Your task to perform on an android device: Go to Google maps Image 0: 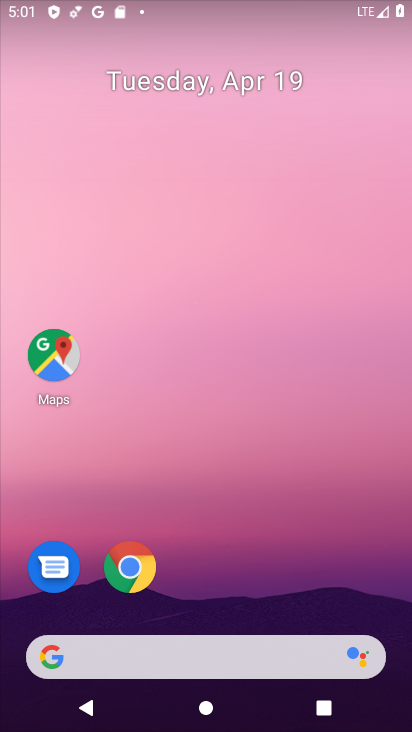
Step 0: drag from (218, 534) to (230, 63)
Your task to perform on an android device: Go to Google maps Image 1: 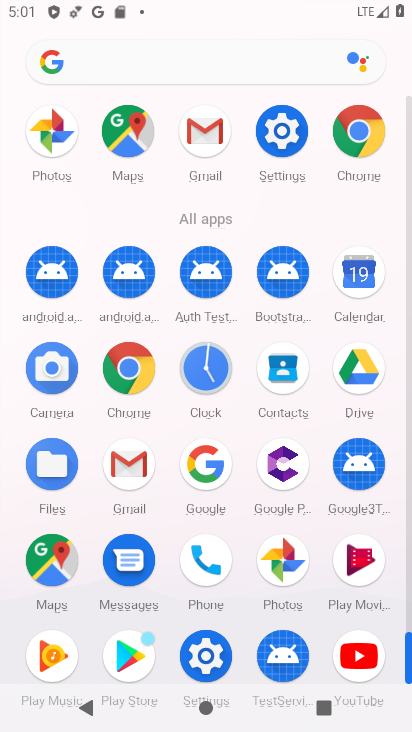
Step 1: click (63, 573)
Your task to perform on an android device: Go to Google maps Image 2: 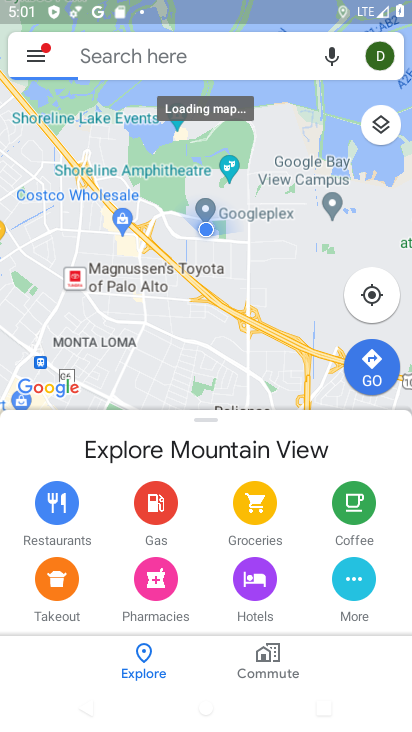
Step 2: task complete